Your task to perform on an android device: Open settings on Google Maps Image 0: 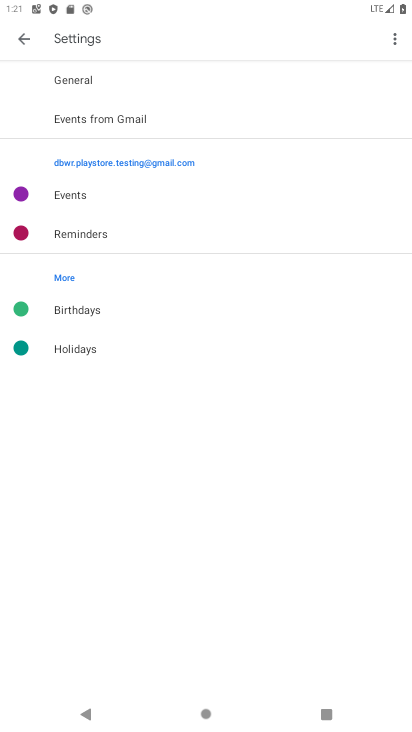
Step 0: press home button
Your task to perform on an android device: Open settings on Google Maps Image 1: 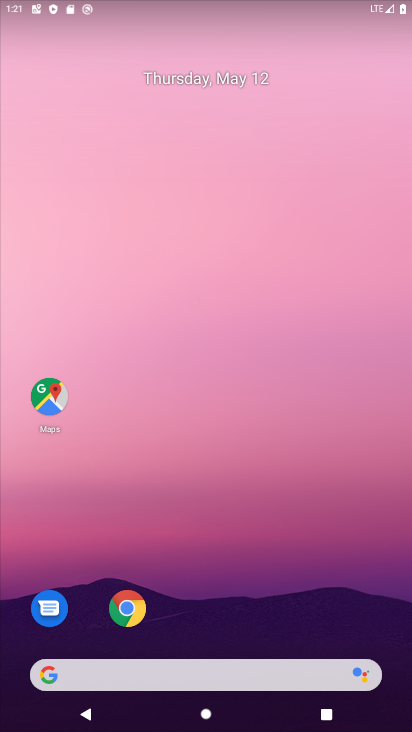
Step 1: click (49, 403)
Your task to perform on an android device: Open settings on Google Maps Image 2: 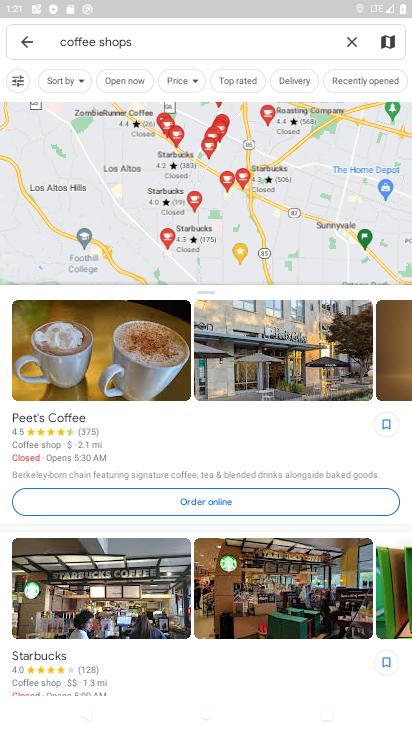
Step 2: click (353, 42)
Your task to perform on an android device: Open settings on Google Maps Image 3: 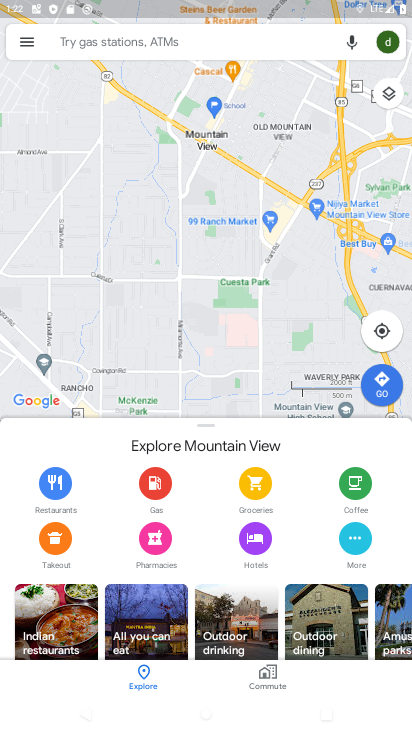
Step 3: click (28, 42)
Your task to perform on an android device: Open settings on Google Maps Image 4: 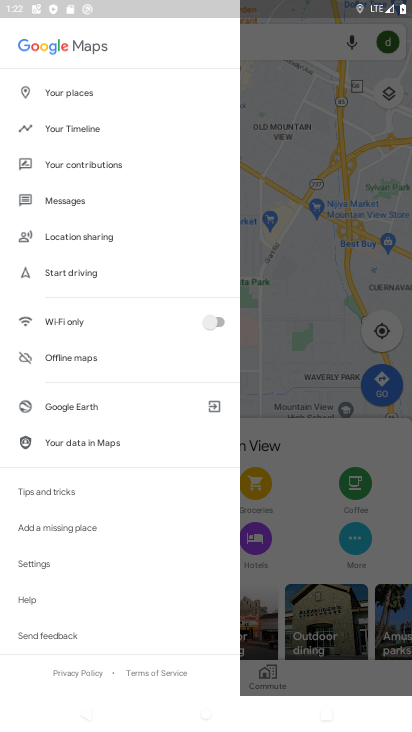
Step 4: click (36, 566)
Your task to perform on an android device: Open settings on Google Maps Image 5: 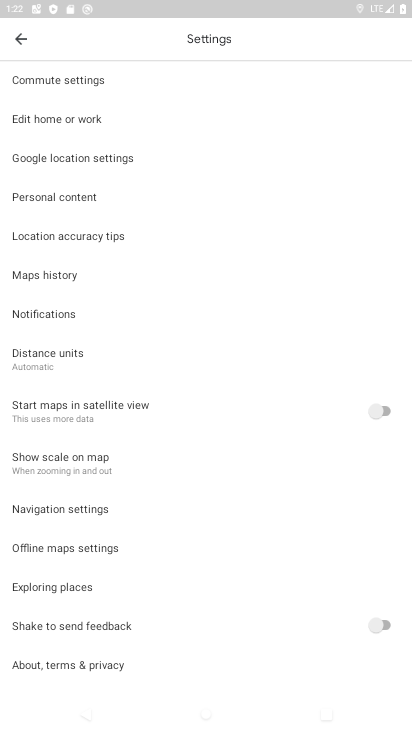
Step 5: task complete